Your task to perform on an android device: Open settings Image 0: 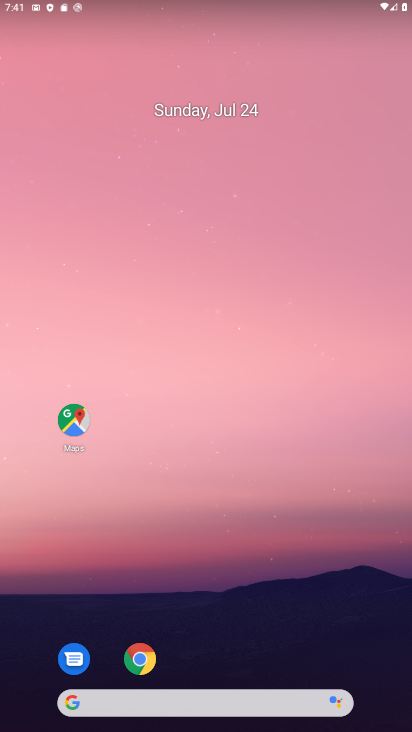
Step 0: drag from (287, 619) to (250, 142)
Your task to perform on an android device: Open settings Image 1: 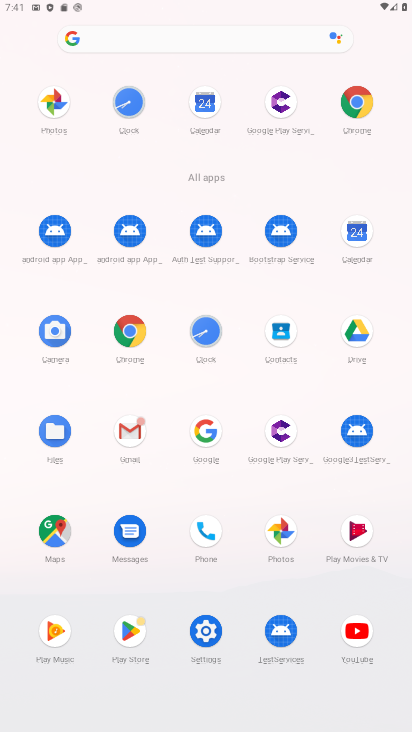
Step 1: click (213, 628)
Your task to perform on an android device: Open settings Image 2: 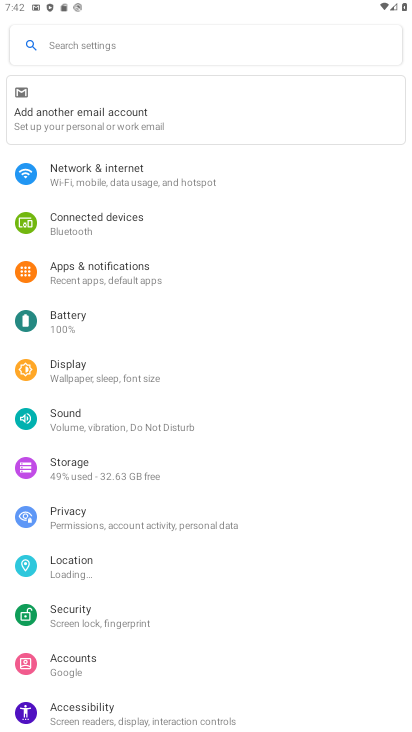
Step 2: task complete